Your task to perform on an android device: What's the weather today? Image 0: 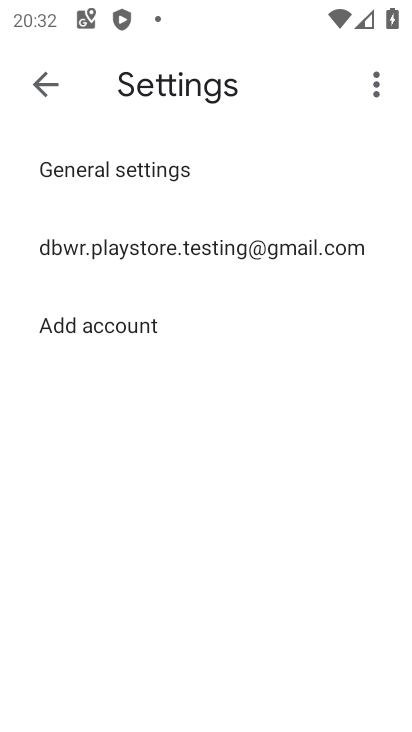
Step 0: press home button
Your task to perform on an android device: What's the weather today? Image 1: 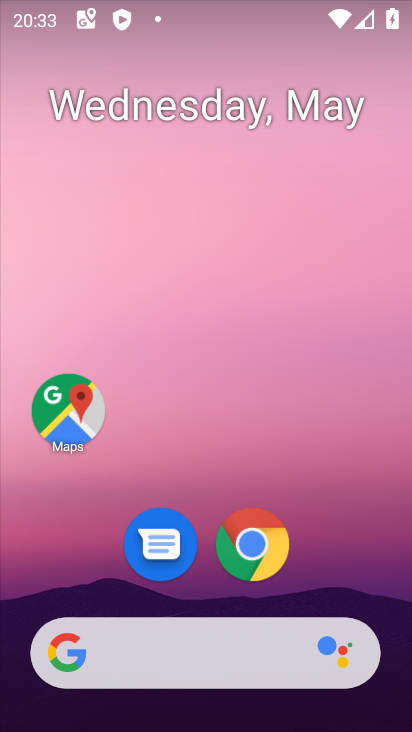
Step 1: click (170, 642)
Your task to perform on an android device: What's the weather today? Image 2: 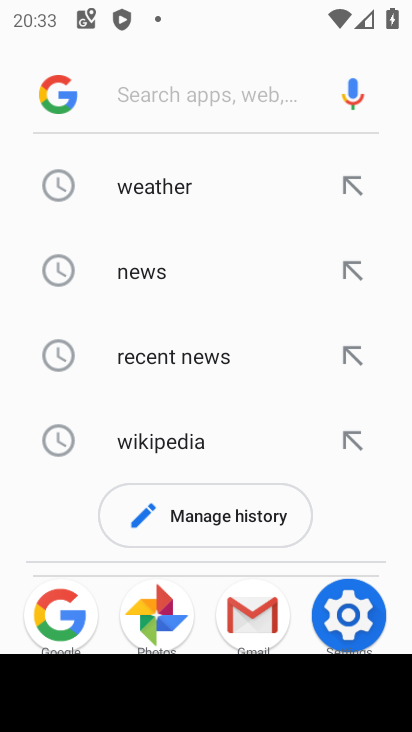
Step 2: click (237, 187)
Your task to perform on an android device: What's the weather today? Image 3: 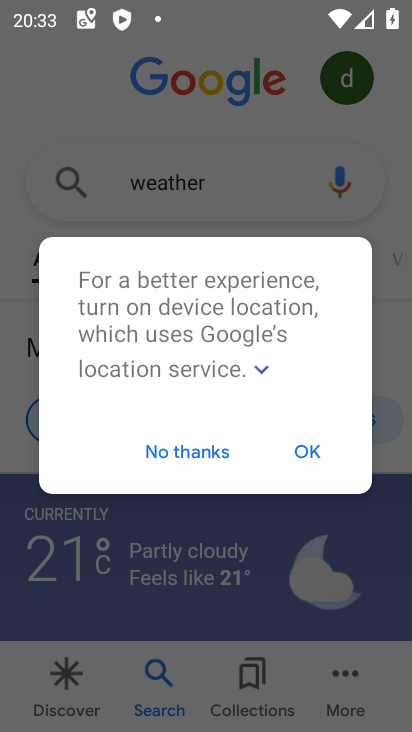
Step 3: click (305, 457)
Your task to perform on an android device: What's the weather today? Image 4: 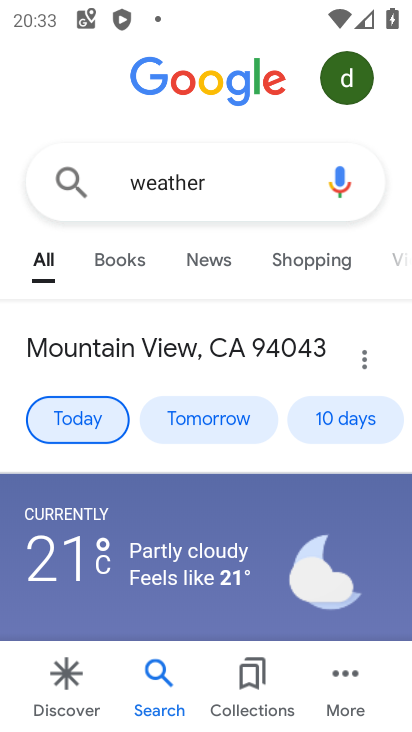
Step 4: task complete